Your task to perform on an android device: Open network settings Image 0: 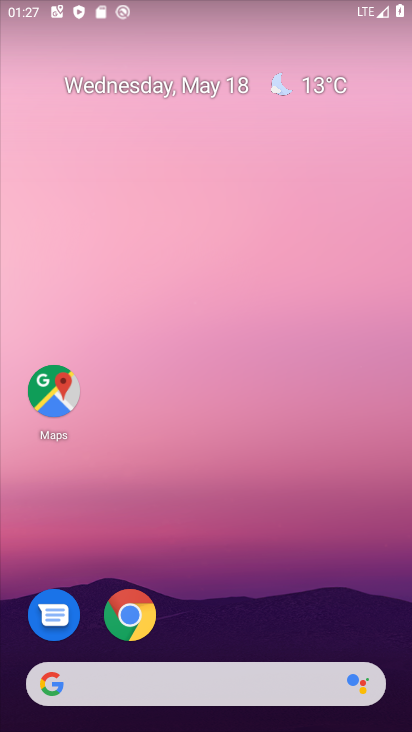
Step 0: press home button
Your task to perform on an android device: Open network settings Image 1: 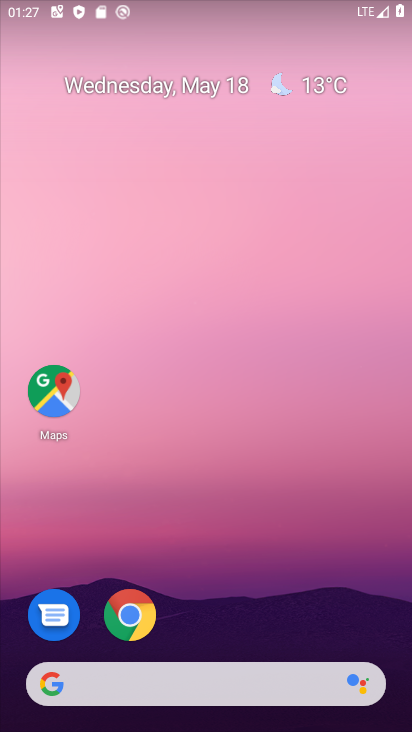
Step 1: drag from (156, 672) to (245, 185)
Your task to perform on an android device: Open network settings Image 2: 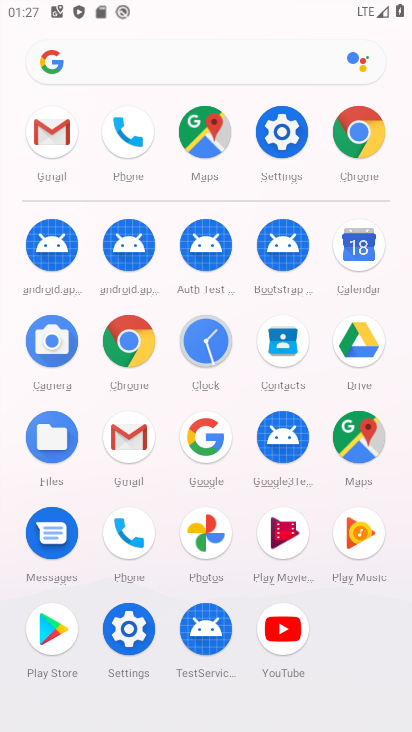
Step 2: click (269, 137)
Your task to perform on an android device: Open network settings Image 3: 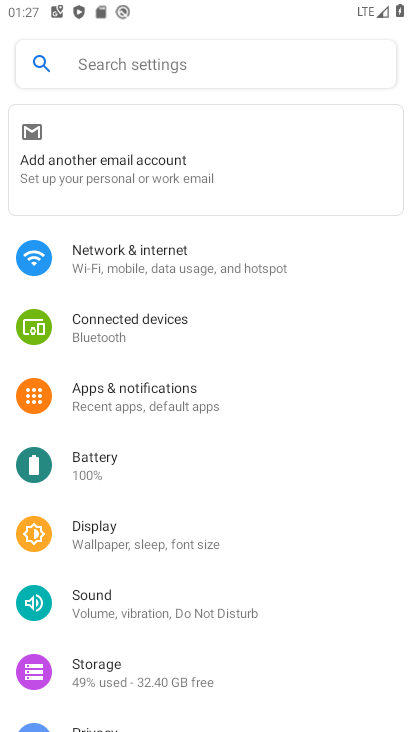
Step 3: click (164, 254)
Your task to perform on an android device: Open network settings Image 4: 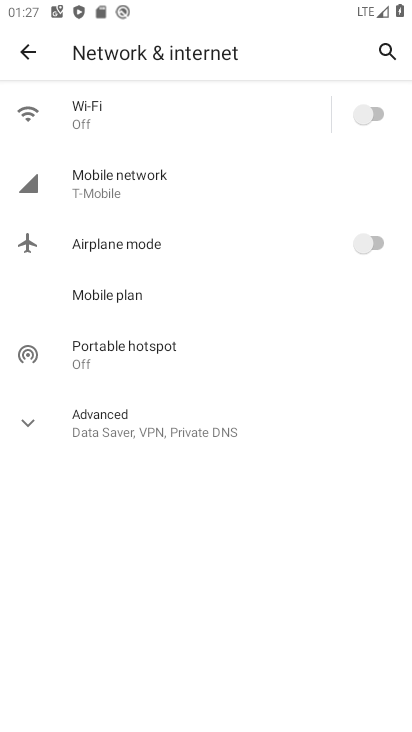
Step 4: task complete